Your task to perform on an android device: What's on my calendar for the rest of the week? Image 0: 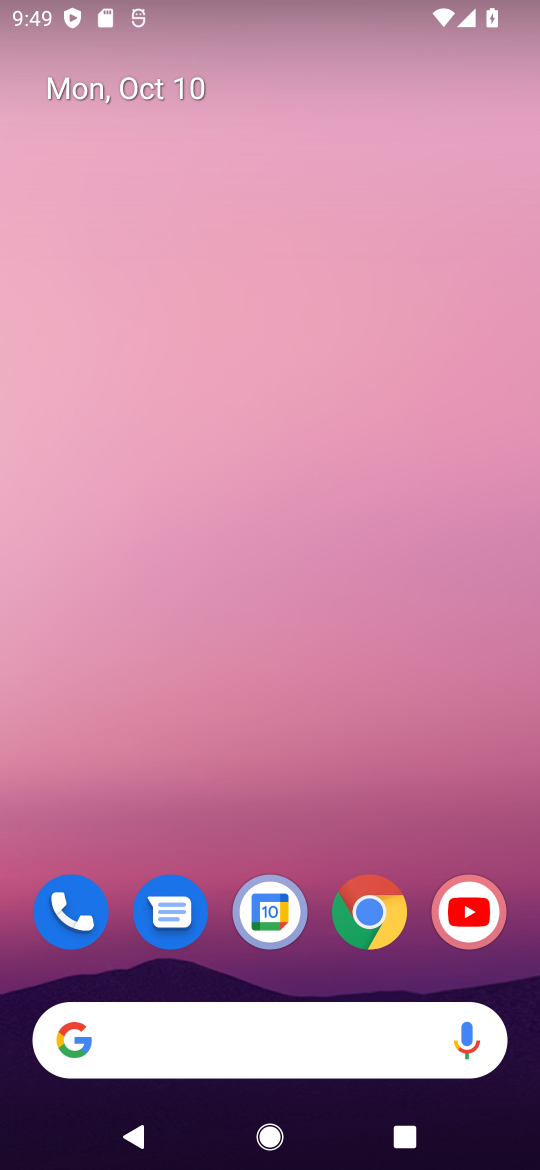
Step 0: drag from (117, 1037) to (219, 306)
Your task to perform on an android device: What's on my calendar for the rest of the week? Image 1: 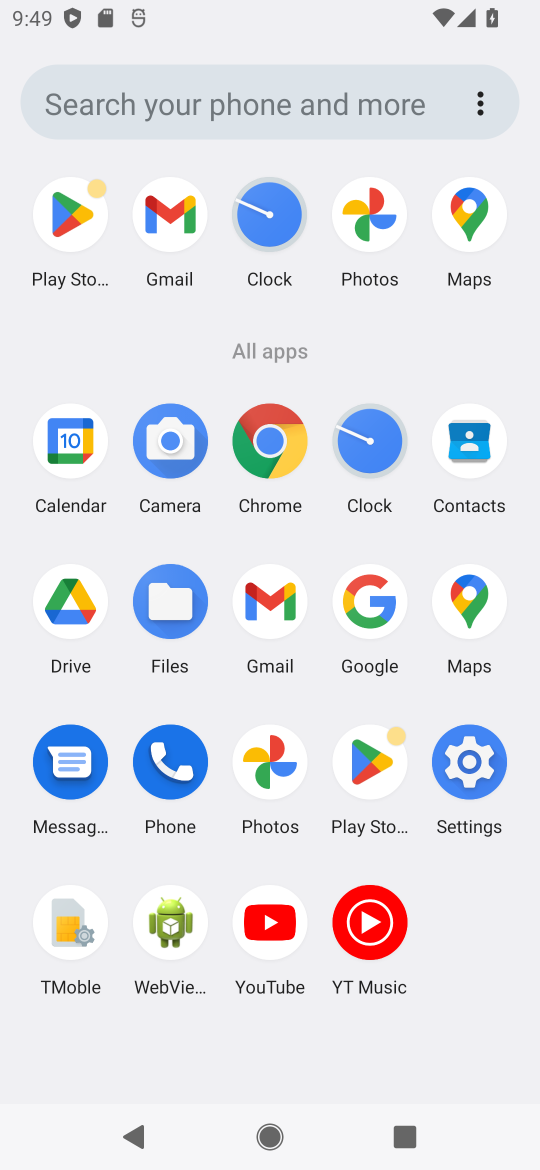
Step 1: click (71, 441)
Your task to perform on an android device: What's on my calendar for the rest of the week? Image 2: 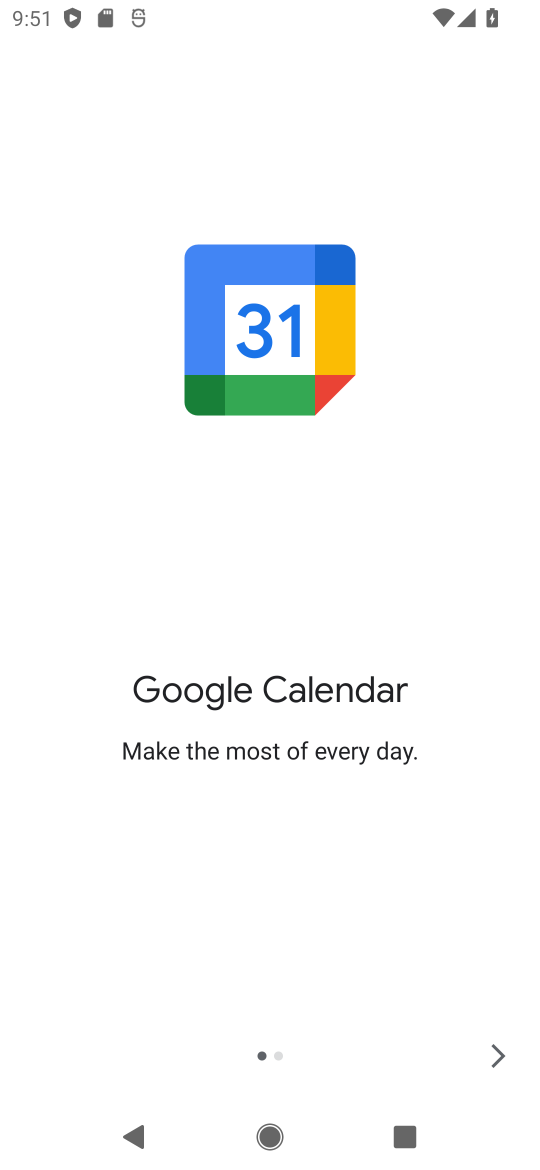
Step 2: task complete